Your task to perform on an android device: Check the news Image 0: 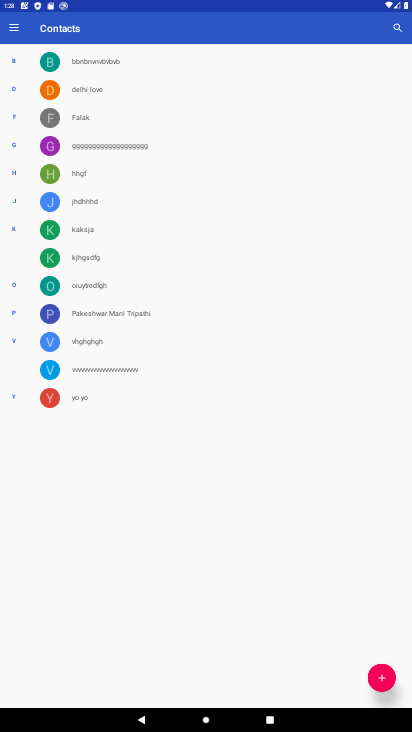
Step 0: press home button
Your task to perform on an android device: Check the news Image 1: 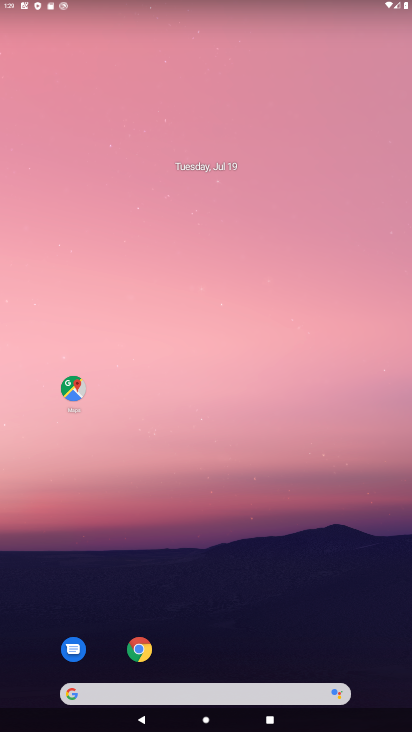
Step 1: click (226, 693)
Your task to perform on an android device: Check the news Image 2: 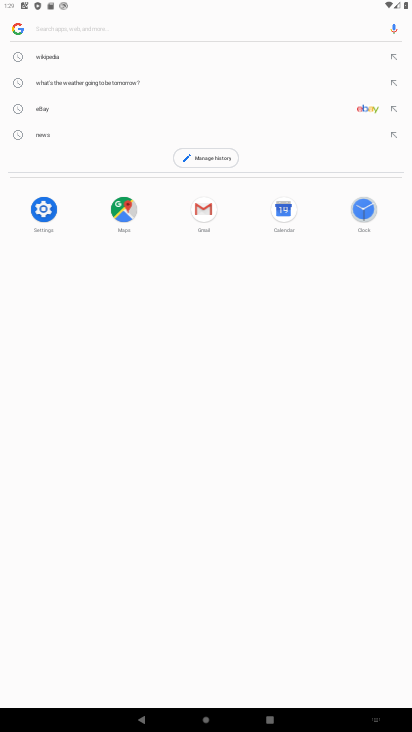
Step 2: type "Check the news"
Your task to perform on an android device: Check the news Image 3: 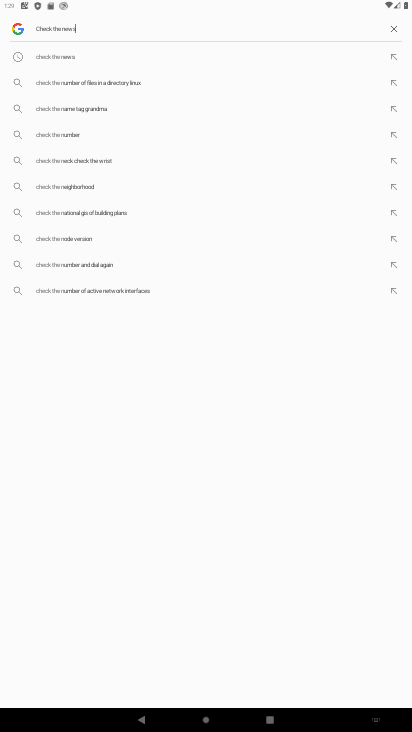
Step 3: press enter
Your task to perform on an android device: Check the news Image 4: 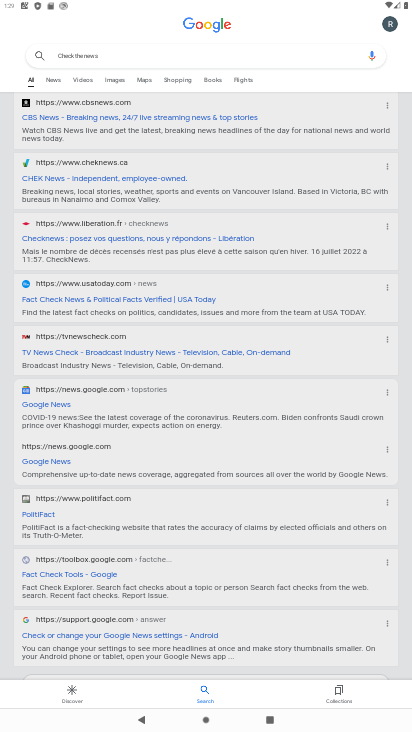
Step 4: task complete